Your task to perform on an android device: turn off location Image 0: 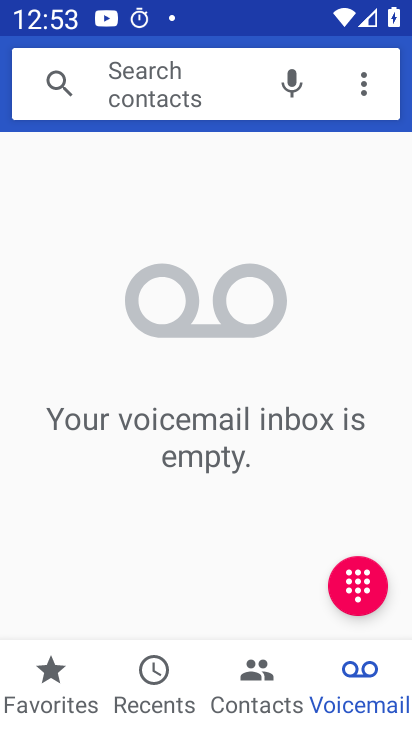
Step 0: press home button
Your task to perform on an android device: turn off location Image 1: 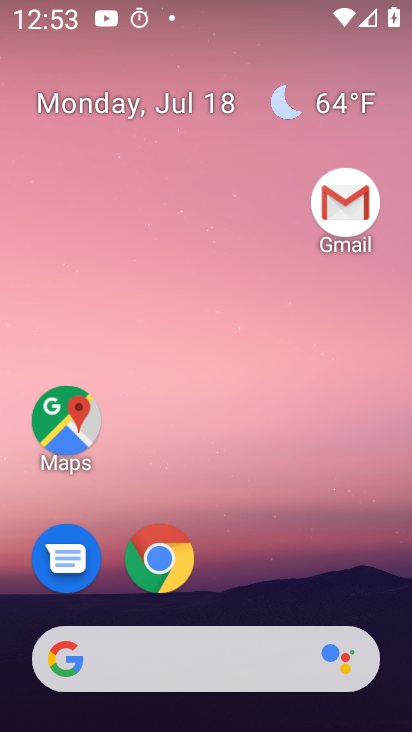
Step 1: drag from (306, 594) to (372, 252)
Your task to perform on an android device: turn off location Image 2: 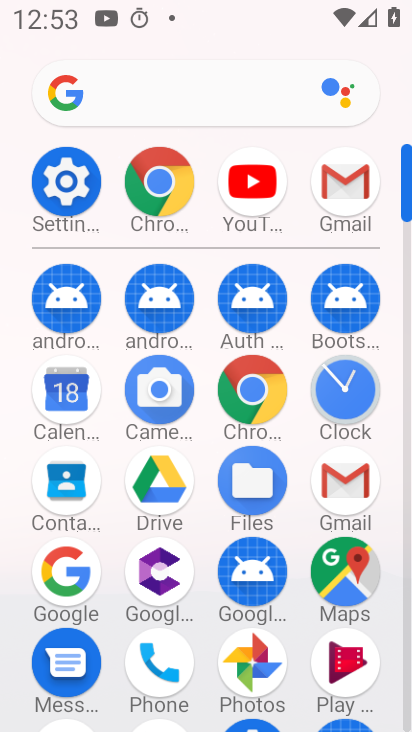
Step 2: click (84, 187)
Your task to perform on an android device: turn off location Image 3: 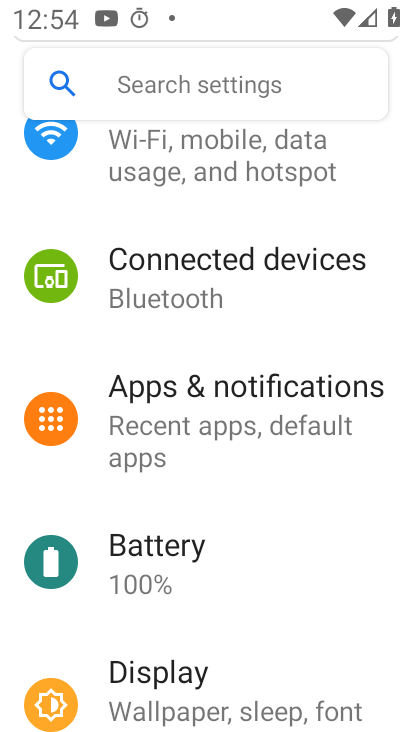
Step 3: drag from (383, 250) to (382, 329)
Your task to perform on an android device: turn off location Image 4: 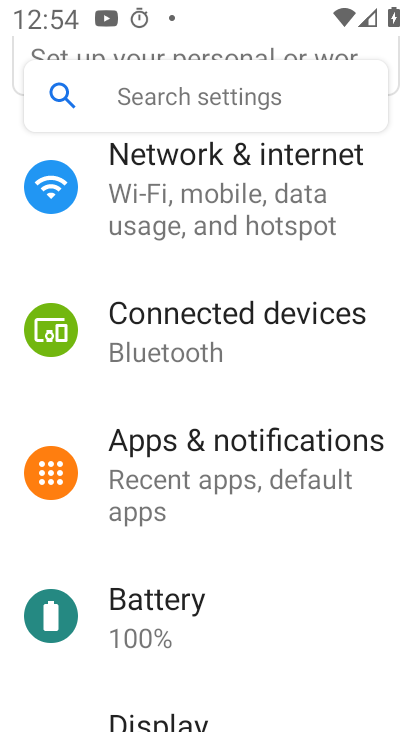
Step 4: drag from (382, 234) to (372, 382)
Your task to perform on an android device: turn off location Image 5: 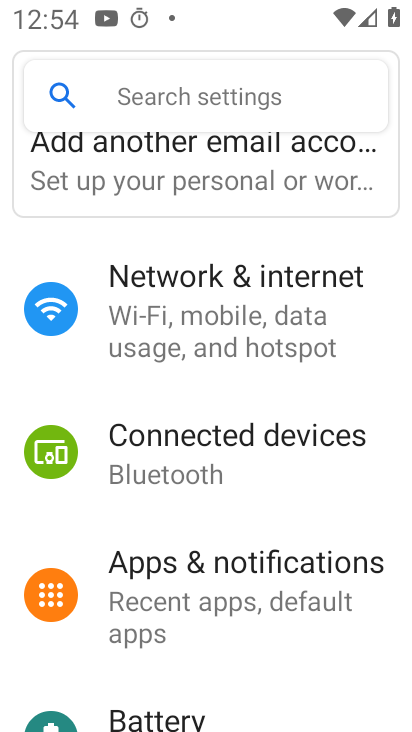
Step 5: drag from (366, 524) to (366, 422)
Your task to perform on an android device: turn off location Image 6: 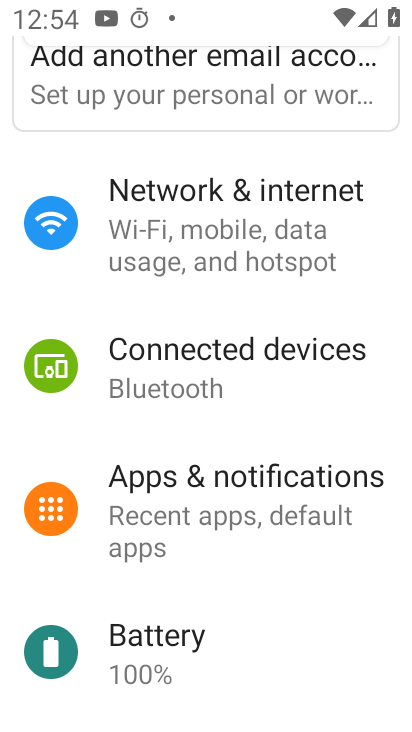
Step 6: drag from (366, 516) to (362, 425)
Your task to perform on an android device: turn off location Image 7: 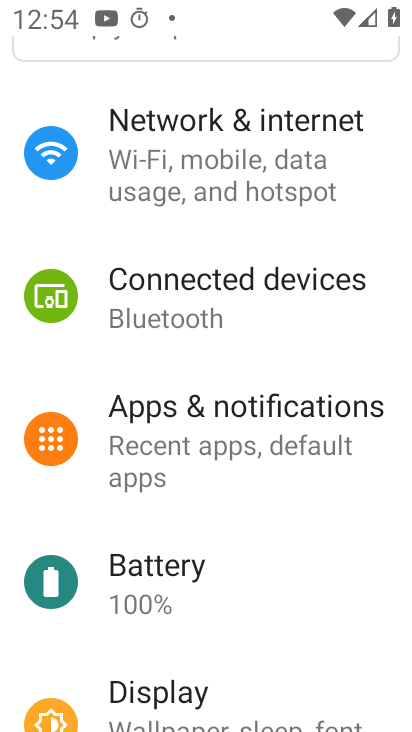
Step 7: drag from (371, 501) to (365, 432)
Your task to perform on an android device: turn off location Image 8: 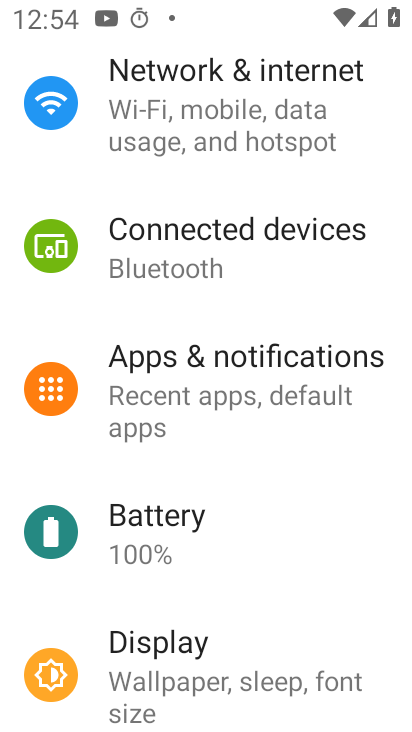
Step 8: drag from (368, 484) to (365, 442)
Your task to perform on an android device: turn off location Image 9: 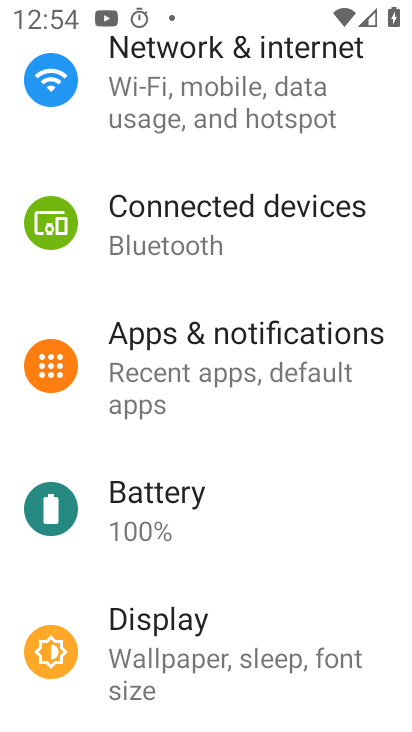
Step 9: drag from (368, 532) to (360, 429)
Your task to perform on an android device: turn off location Image 10: 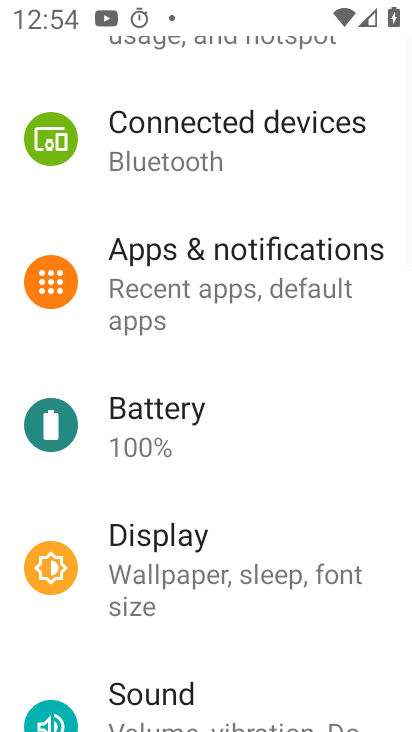
Step 10: drag from (365, 543) to (358, 466)
Your task to perform on an android device: turn off location Image 11: 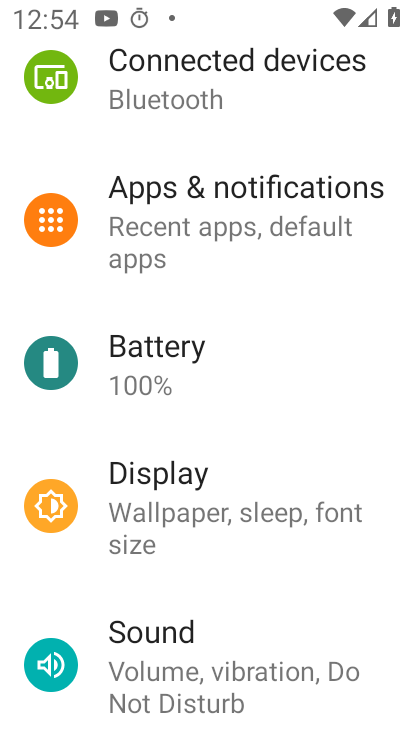
Step 11: drag from (377, 589) to (378, 502)
Your task to perform on an android device: turn off location Image 12: 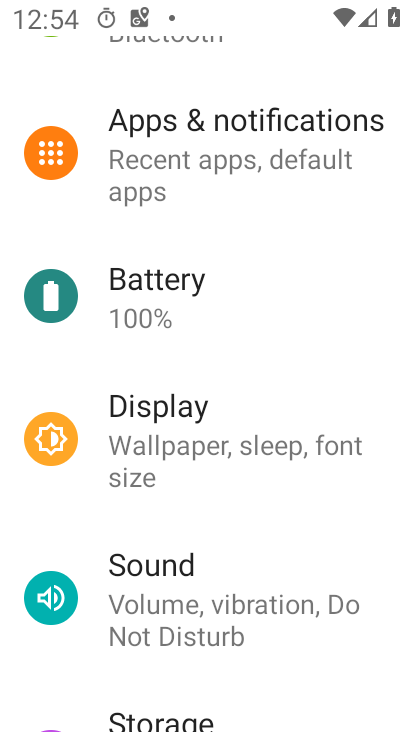
Step 12: drag from (380, 624) to (378, 532)
Your task to perform on an android device: turn off location Image 13: 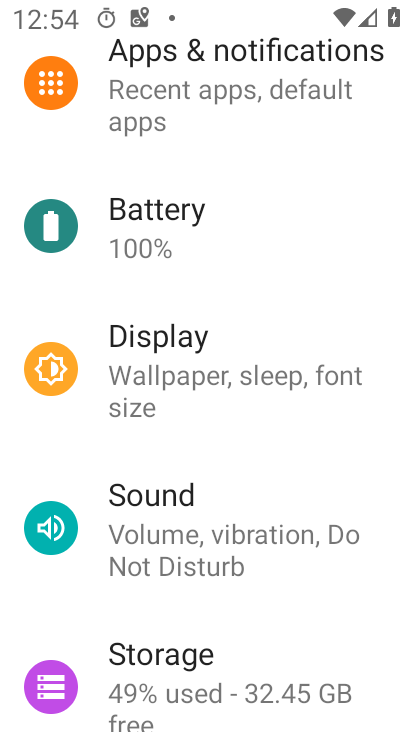
Step 13: drag from (370, 627) to (360, 517)
Your task to perform on an android device: turn off location Image 14: 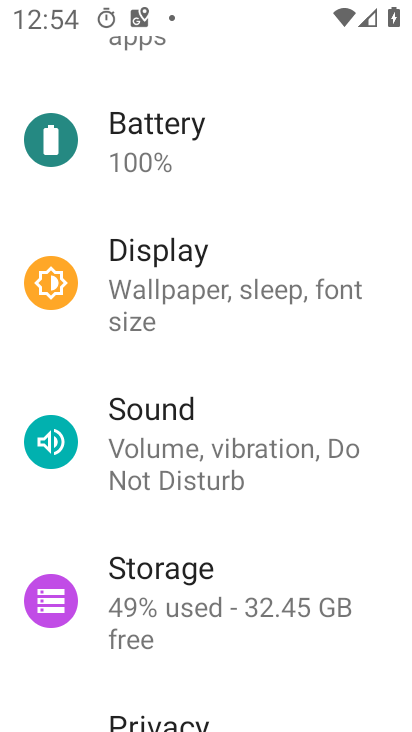
Step 14: drag from (375, 633) to (375, 523)
Your task to perform on an android device: turn off location Image 15: 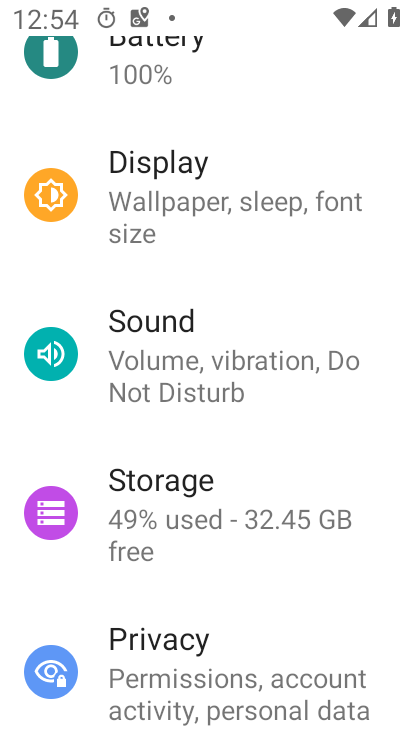
Step 15: drag from (387, 658) to (384, 576)
Your task to perform on an android device: turn off location Image 16: 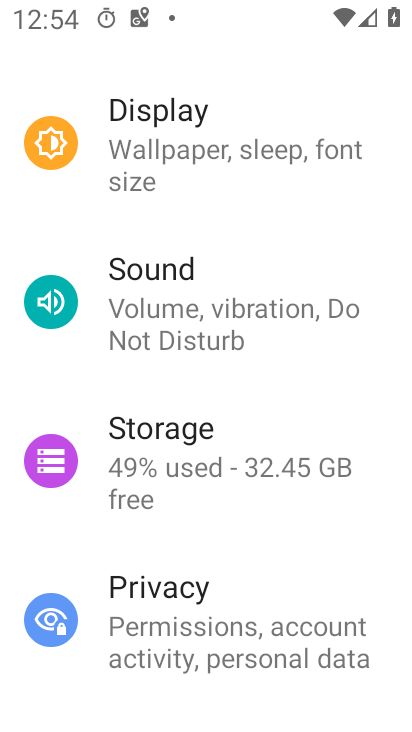
Step 16: drag from (349, 547) to (349, 294)
Your task to perform on an android device: turn off location Image 17: 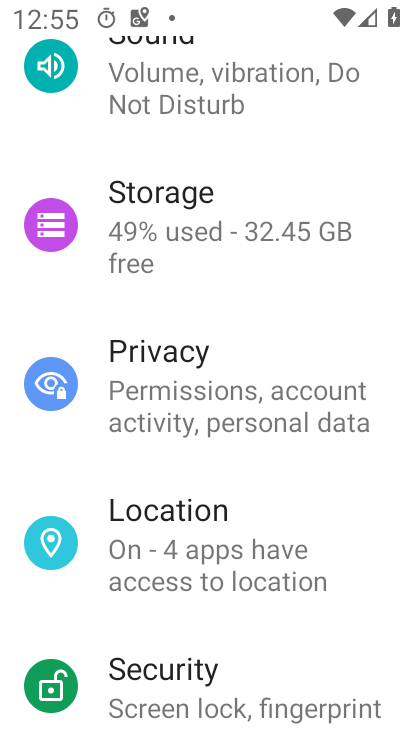
Step 17: click (337, 570)
Your task to perform on an android device: turn off location Image 18: 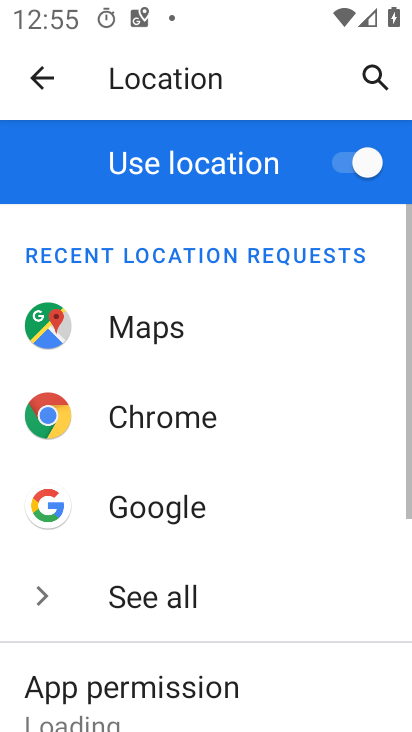
Step 18: click (362, 155)
Your task to perform on an android device: turn off location Image 19: 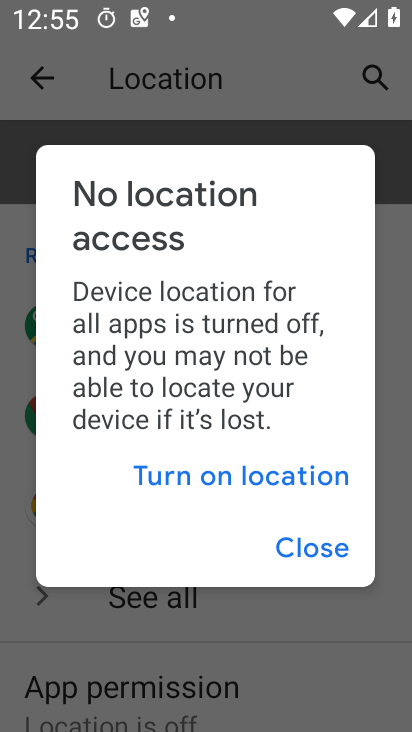
Step 19: task complete